Your task to perform on an android device: check battery use Image 0: 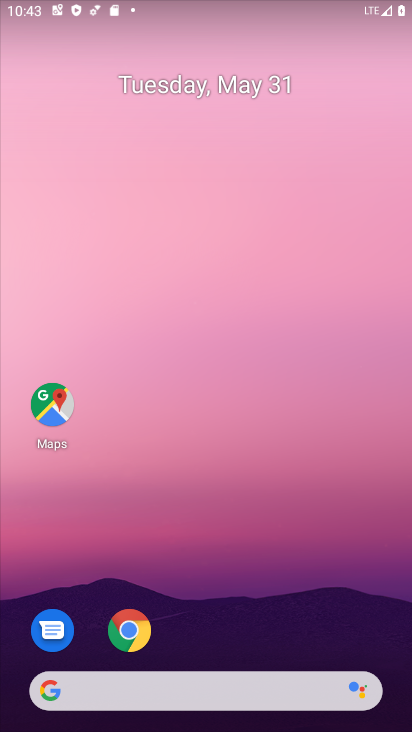
Step 0: drag from (182, 562) to (199, 232)
Your task to perform on an android device: check battery use Image 1: 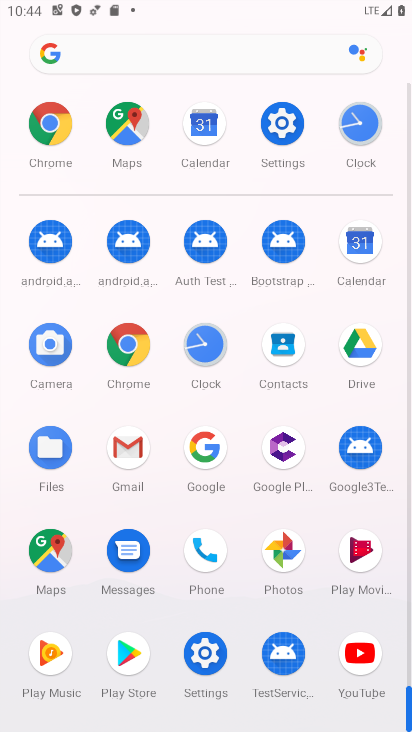
Step 1: click (285, 145)
Your task to perform on an android device: check battery use Image 2: 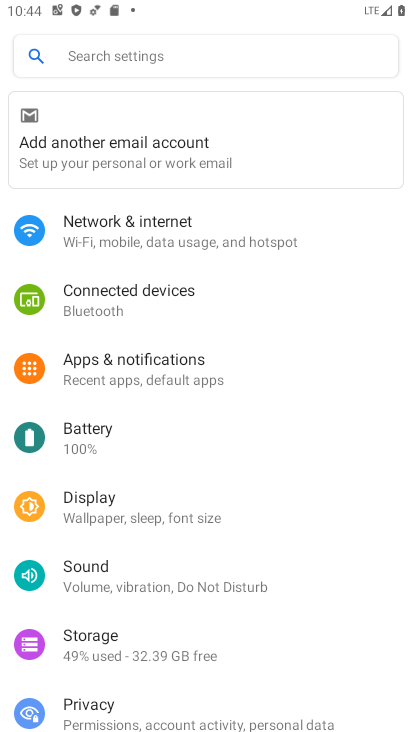
Step 2: click (148, 436)
Your task to perform on an android device: check battery use Image 3: 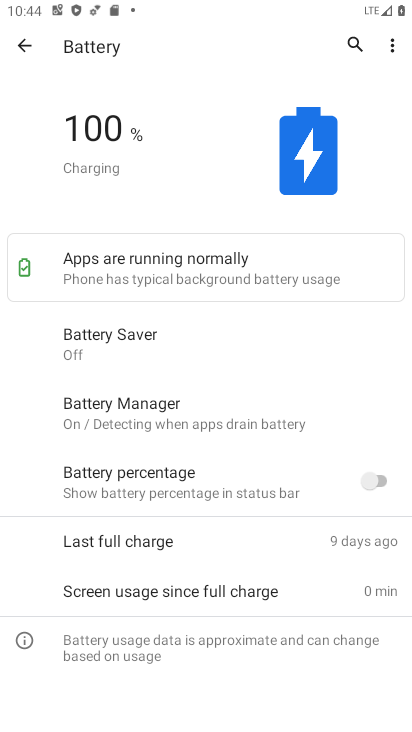
Step 3: task complete